Your task to perform on an android device: Open Chrome and go to settings Image 0: 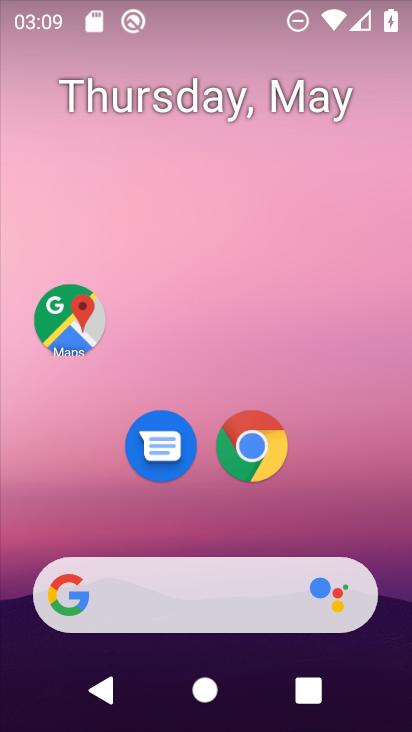
Step 0: click (240, 455)
Your task to perform on an android device: Open Chrome and go to settings Image 1: 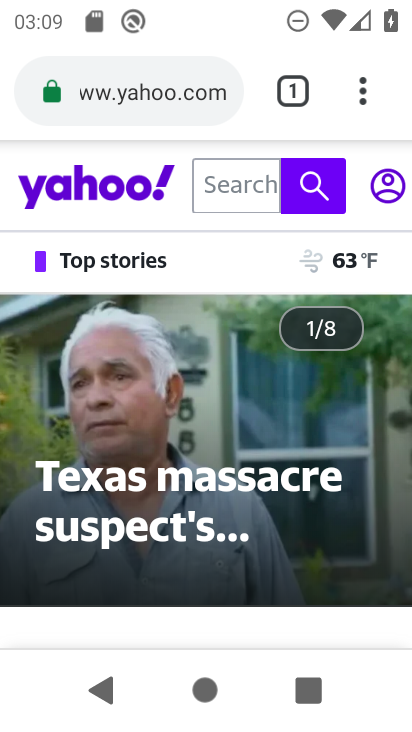
Step 1: click (360, 96)
Your task to perform on an android device: Open Chrome and go to settings Image 2: 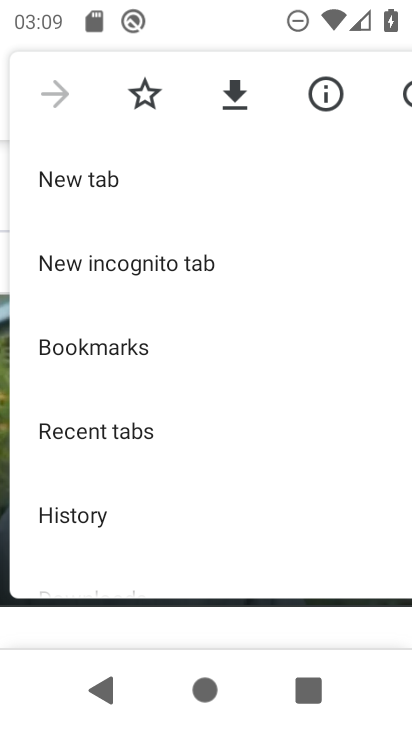
Step 2: drag from (199, 397) to (200, 153)
Your task to perform on an android device: Open Chrome and go to settings Image 3: 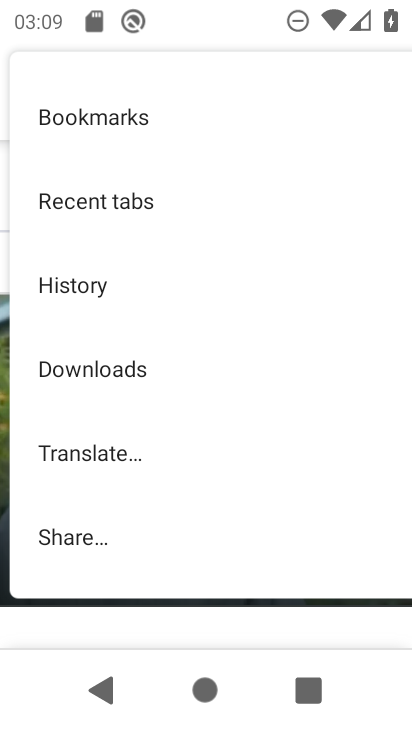
Step 3: drag from (177, 470) to (180, 112)
Your task to perform on an android device: Open Chrome and go to settings Image 4: 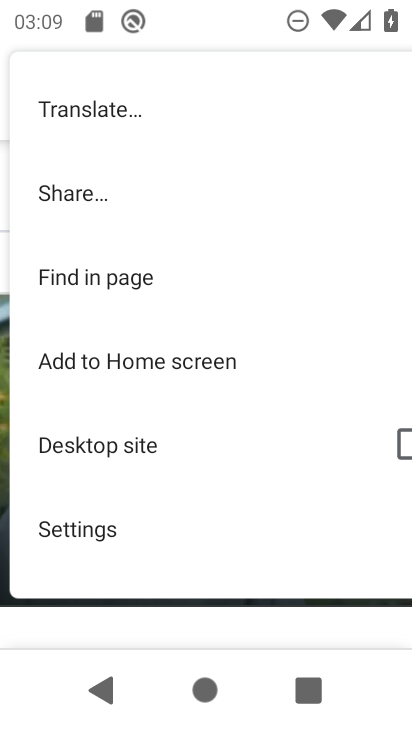
Step 4: click (76, 529)
Your task to perform on an android device: Open Chrome and go to settings Image 5: 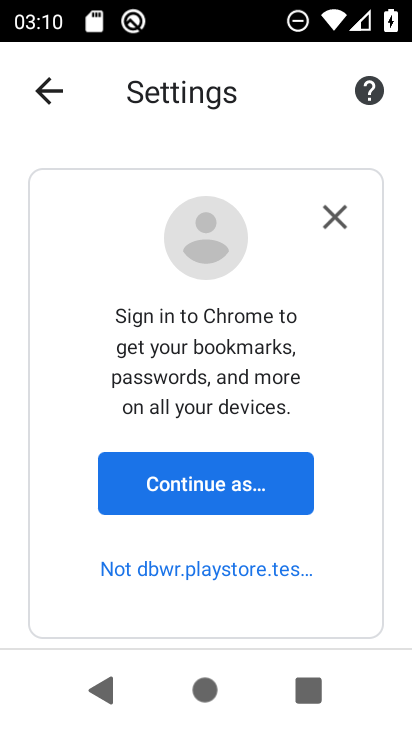
Step 5: task complete